Your task to perform on an android device: Open location settings Image 0: 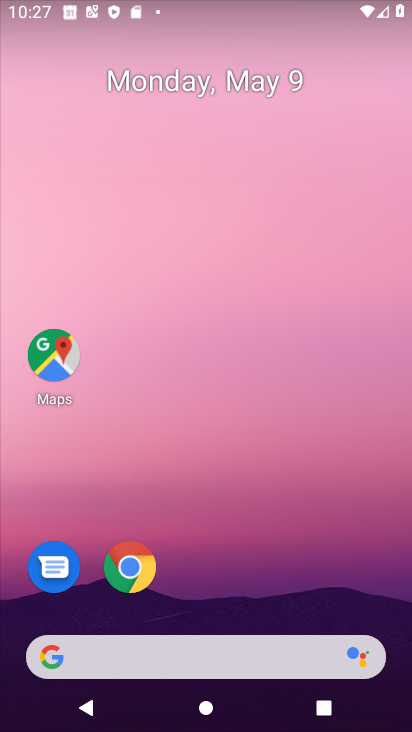
Step 0: drag from (232, 634) to (168, 48)
Your task to perform on an android device: Open location settings Image 1: 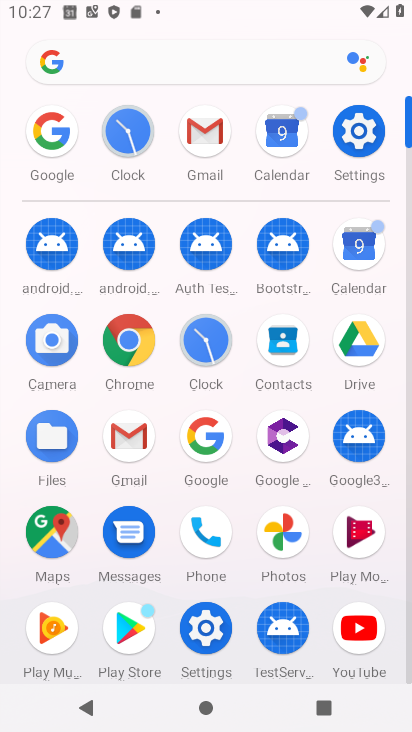
Step 1: click (356, 142)
Your task to perform on an android device: Open location settings Image 2: 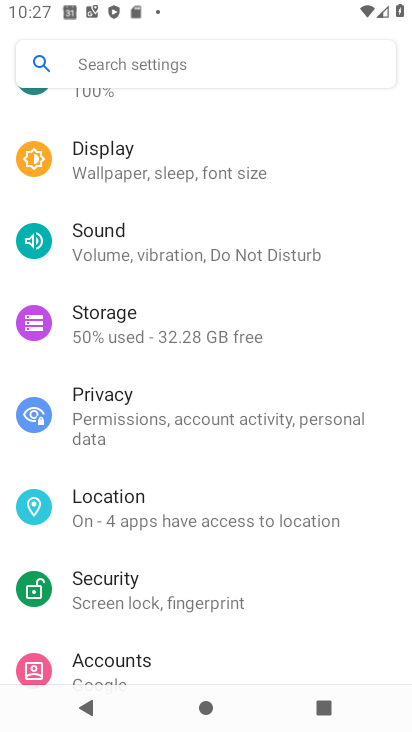
Step 2: click (142, 503)
Your task to perform on an android device: Open location settings Image 3: 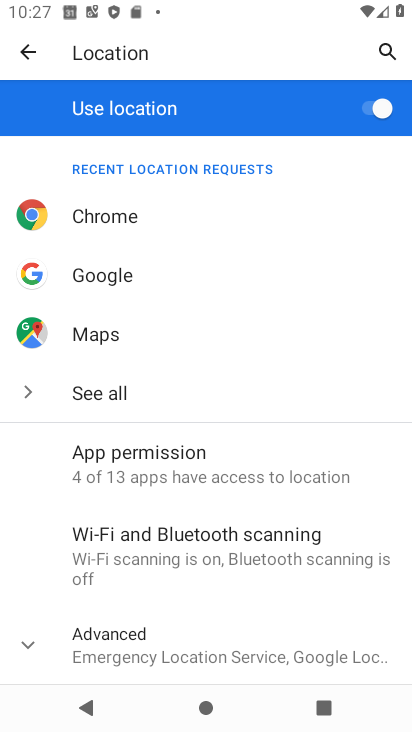
Step 3: drag from (213, 526) to (21, 77)
Your task to perform on an android device: Open location settings Image 4: 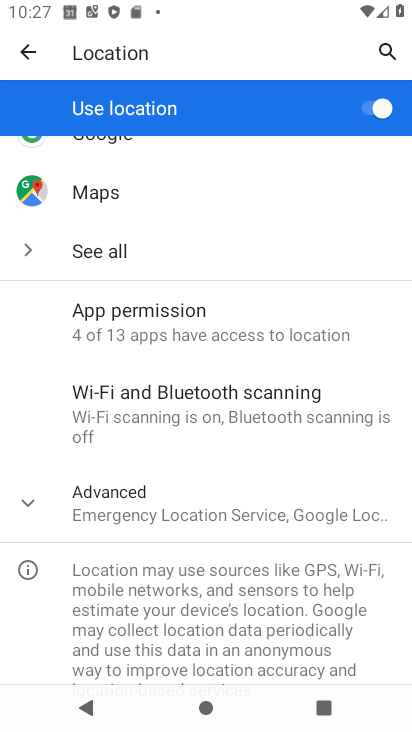
Step 4: click (167, 455)
Your task to perform on an android device: Open location settings Image 5: 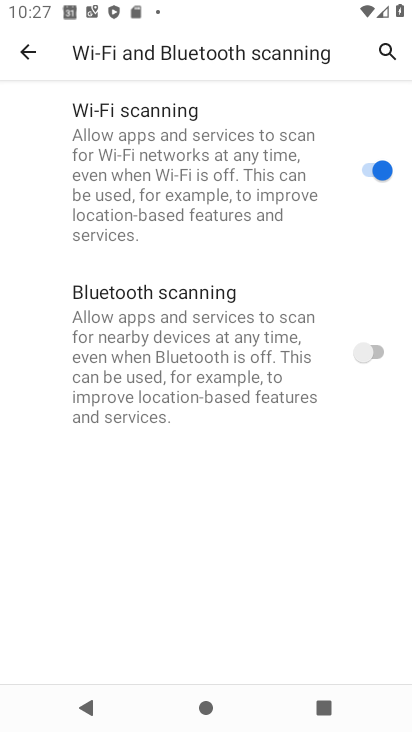
Step 5: task complete